Your task to perform on an android device: add a contact Image 0: 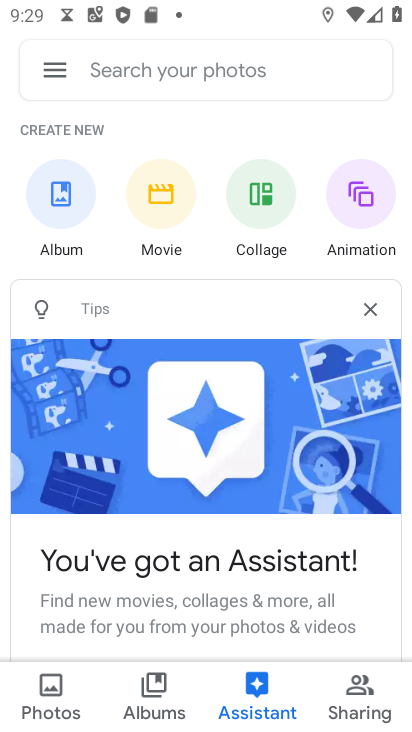
Step 0: press home button
Your task to perform on an android device: add a contact Image 1: 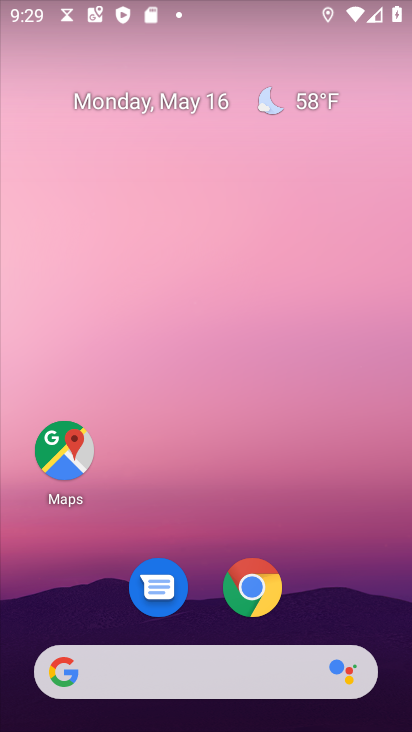
Step 1: drag from (334, 555) to (247, 143)
Your task to perform on an android device: add a contact Image 2: 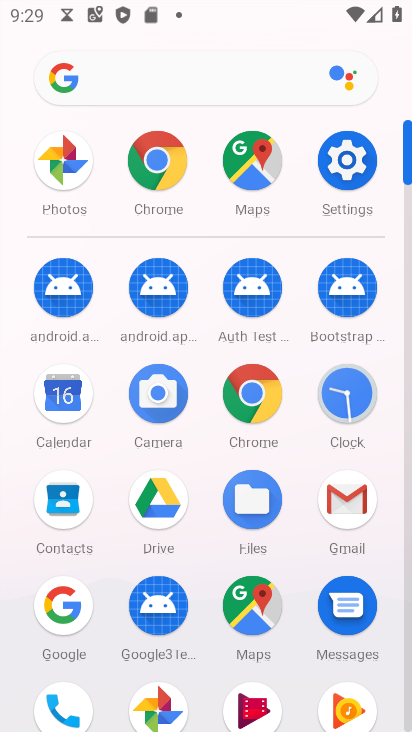
Step 2: click (67, 503)
Your task to perform on an android device: add a contact Image 3: 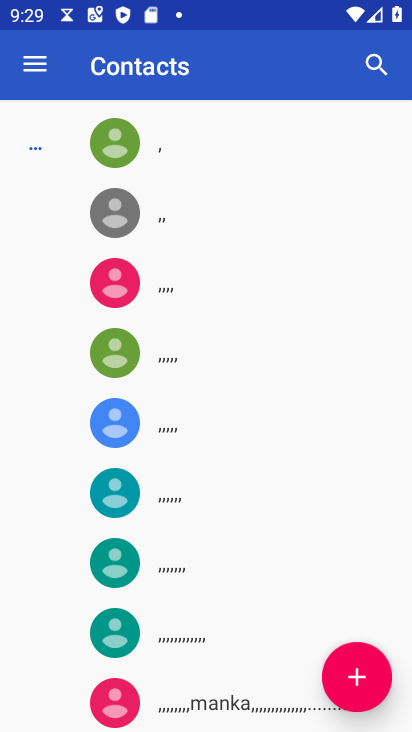
Step 3: click (364, 680)
Your task to perform on an android device: add a contact Image 4: 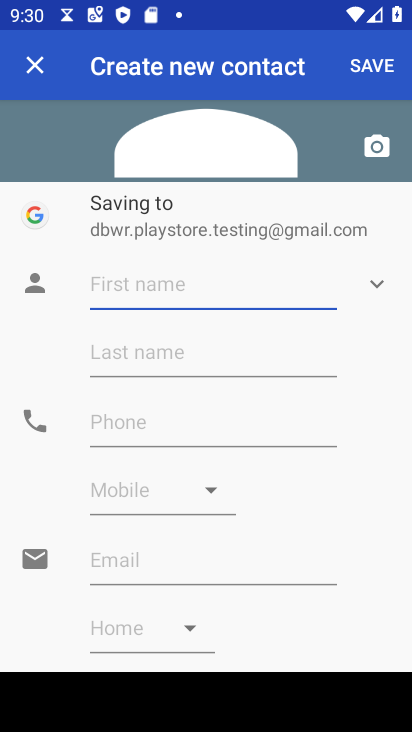
Step 4: click (193, 287)
Your task to perform on an android device: add a contact Image 5: 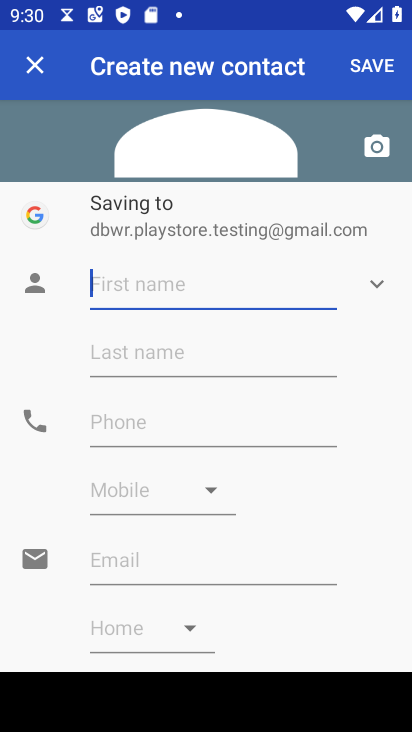
Step 5: type "bkhbkbk"
Your task to perform on an android device: add a contact Image 6: 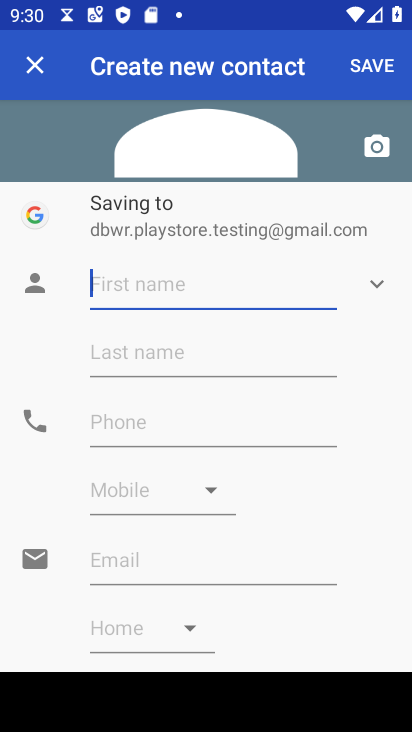
Step 6: click (237, 431)
Your task to perform on an android device: add a contact Image 7: 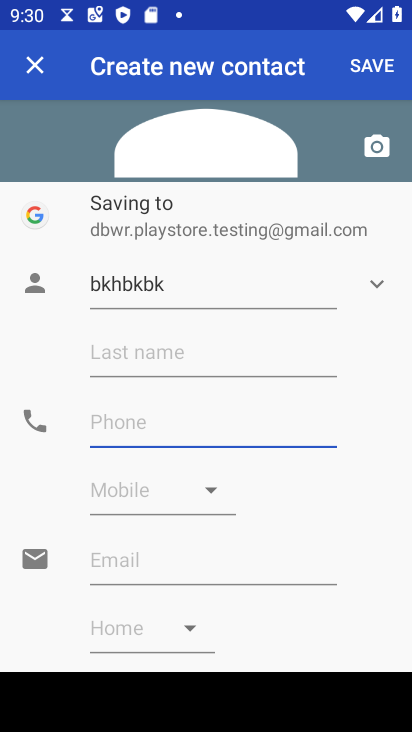
Step 7: type "986976998"
Your task to perform on an android device: add a contact Image 8: 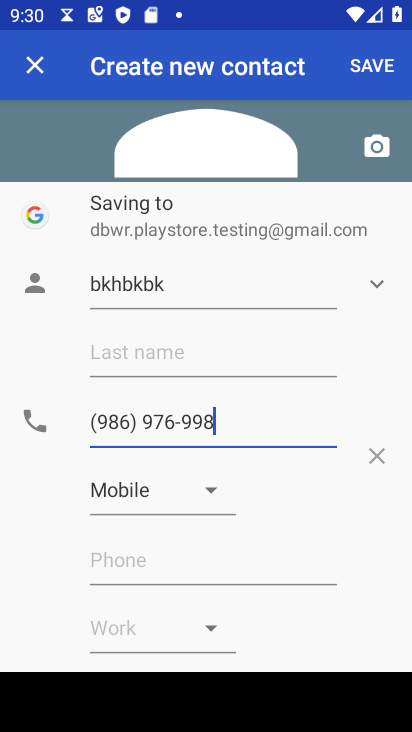
Step 8: click (371, 76)
Your task to perform on an android device: add a contact Image 9: 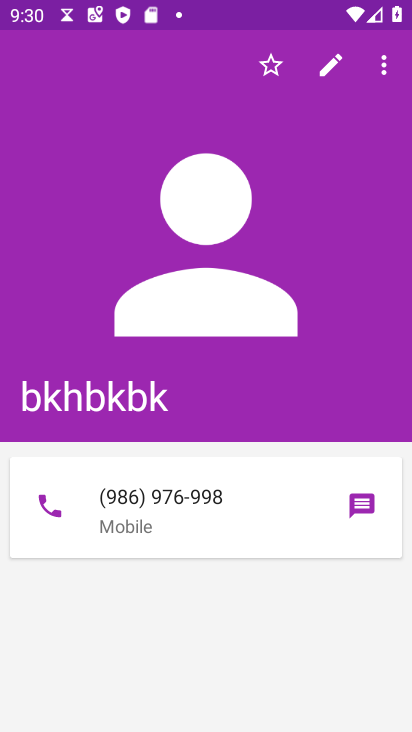
Step 9: task complete